Your task to perform on an android device: clear history in the chrome app Image 0: 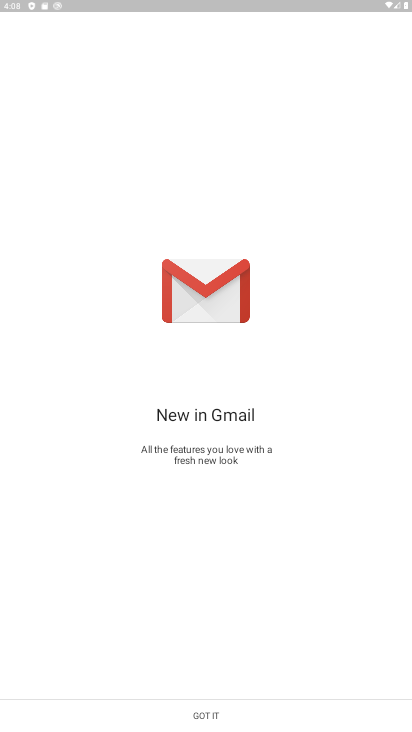
Step 0: press home button
Your task to perform on an android device: clear history in the chrome app Image 1: 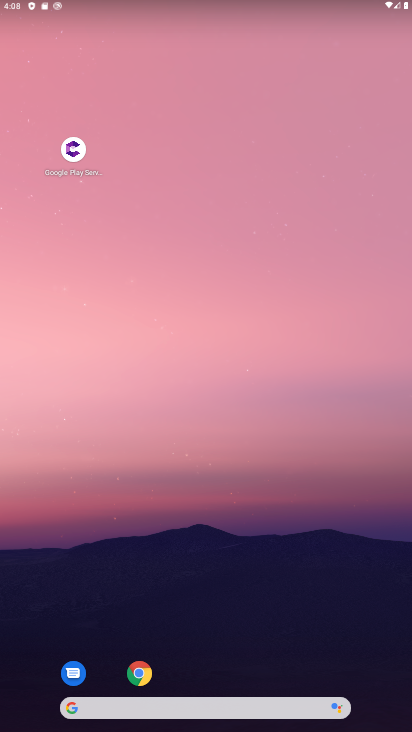
Step 1: click (142, 669)
Your task to perform on an android device: clear history in the chrome app Image 2: 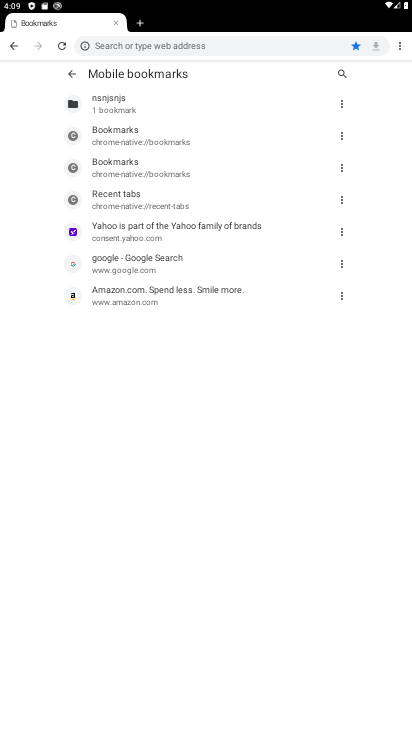
Step 2: click (404, 44)
Your task to perform on an android device: clear history in the chrome app Image 3: 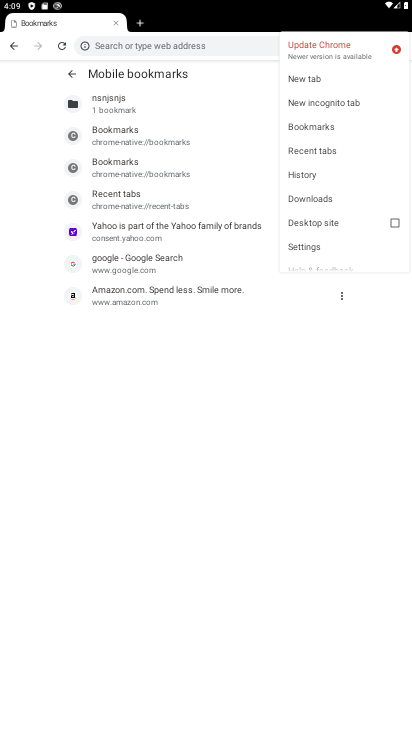
Step 3: click (310, 177)
Your task to perform on an android device: clear history in the chrome app Image 4: 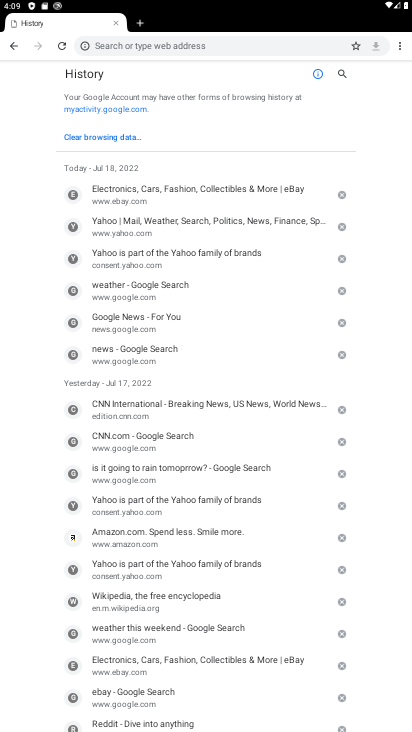
Step 4: click (113, 136)
Your task to perform on an android device: clear history in the chrome app Image 5: 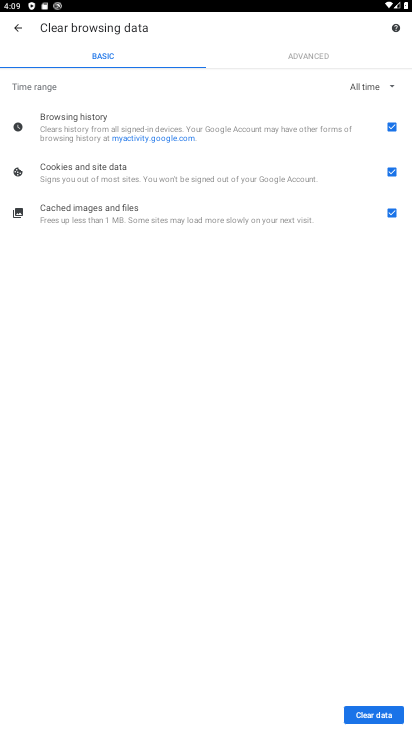
Step 5: click (396, 215)
Your task to perform on an android device: clear history in the chrome app Image 6: 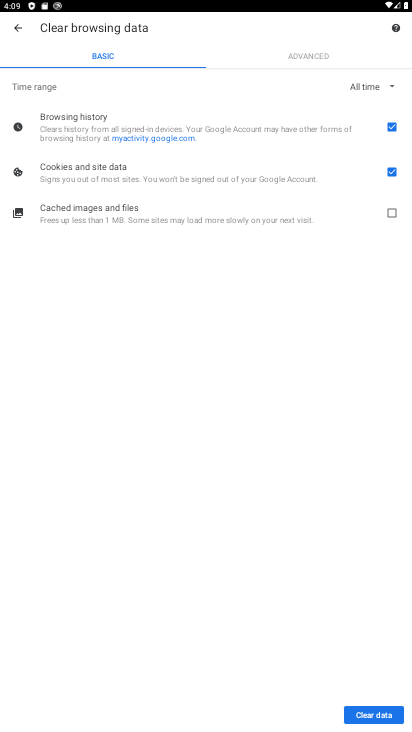
Step 6: click (390, 168)
Your task to perform on an android device: clear history in the chrome app Image 7: 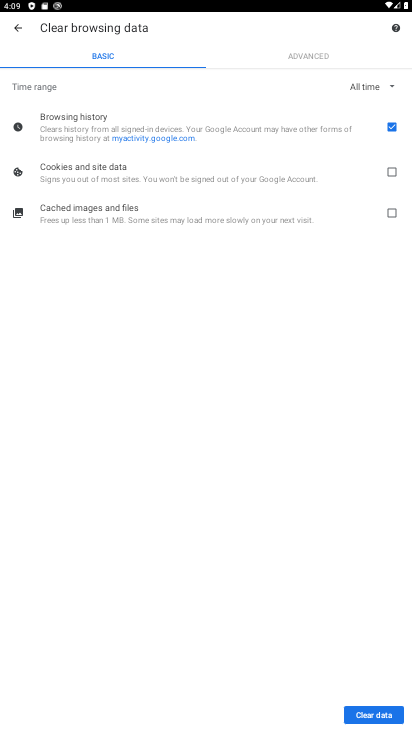
Step 7: click (373, 711)
Your task to perform on an android device: clear history in the chrome app Image 8: 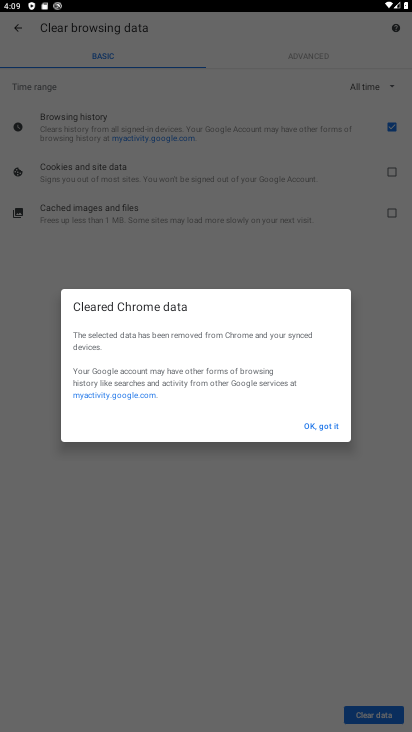
Step 8: click (329, 427)
Your task to perform on an android device: clear history in the chrome app Image 9: 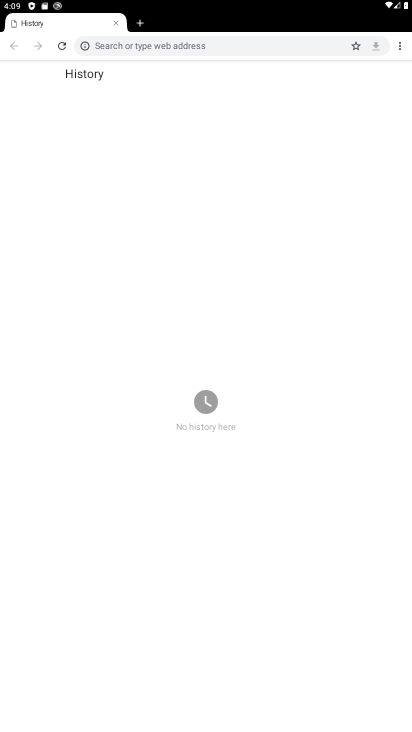
Step 9: task complete